Your task to perform on an android device: see creations saved in the google photos Image 0: 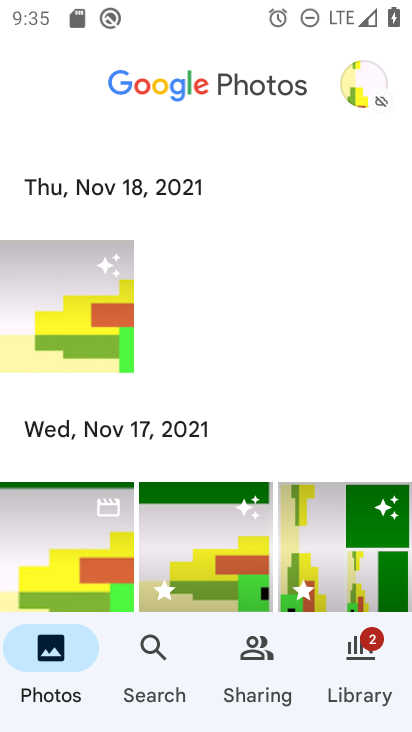
Step 0: click (365, 673)
Your task to perform on an android device: see creations saved in the google photos Image 1: 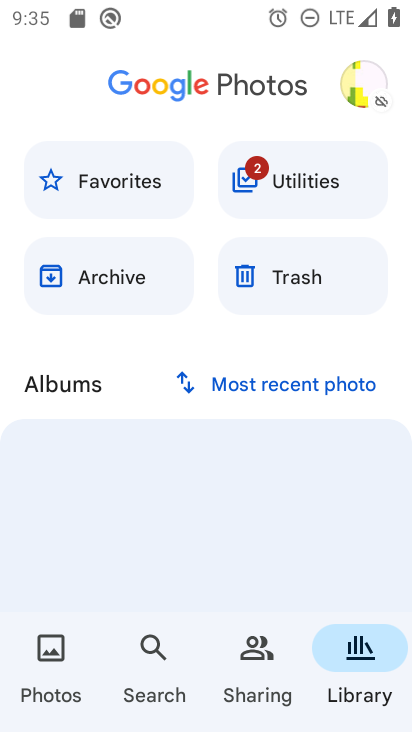
Step 1: click (128, 278)
Your task to perform on an android device: see creations saved in the google photos Image 2: 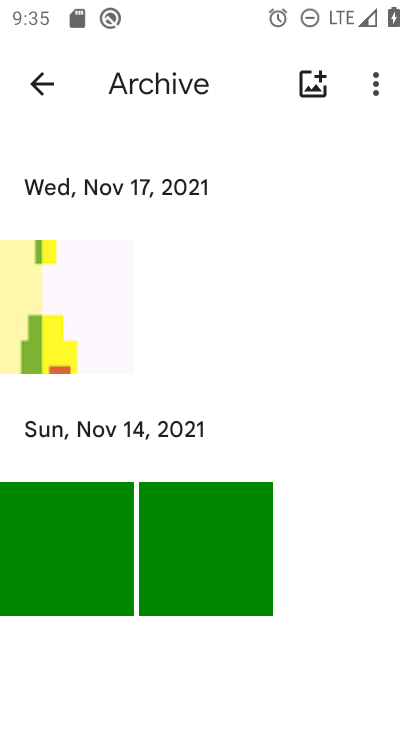
Step 2: task complete